Your task to perform on an android device: set default search engine in the chrome app Image 0: 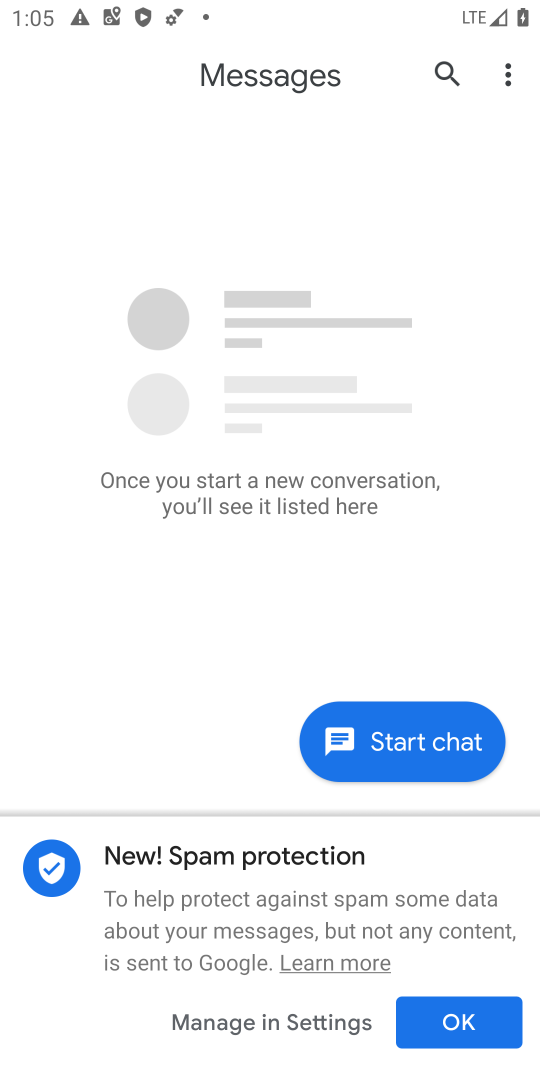
Step 0: press back button
Your task to perform on an android device: set default search engine in the chrome app Image 1: 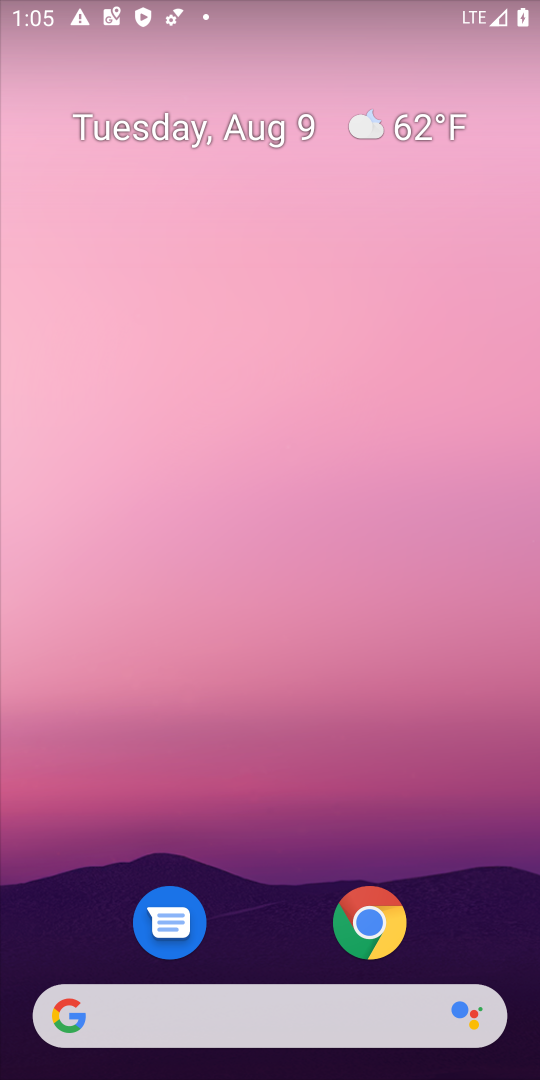
Step 1: click (399, 908)
Your task to perform on an android device: set default search engine in the chrome app Image 2: 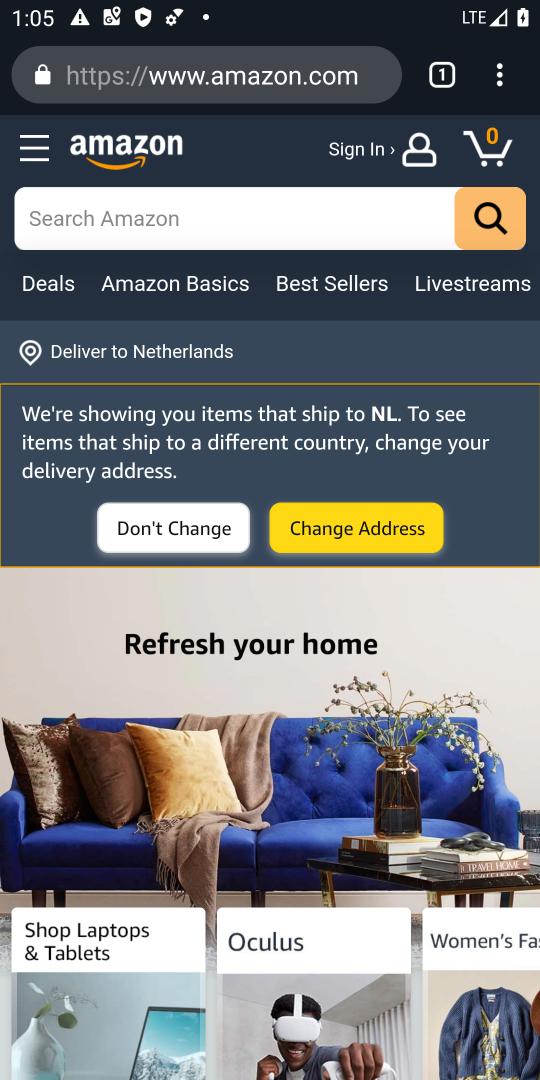
Step 2: click (504, 88)
Your task to perform on an android device: set default search engine in the chrome app Image 3: 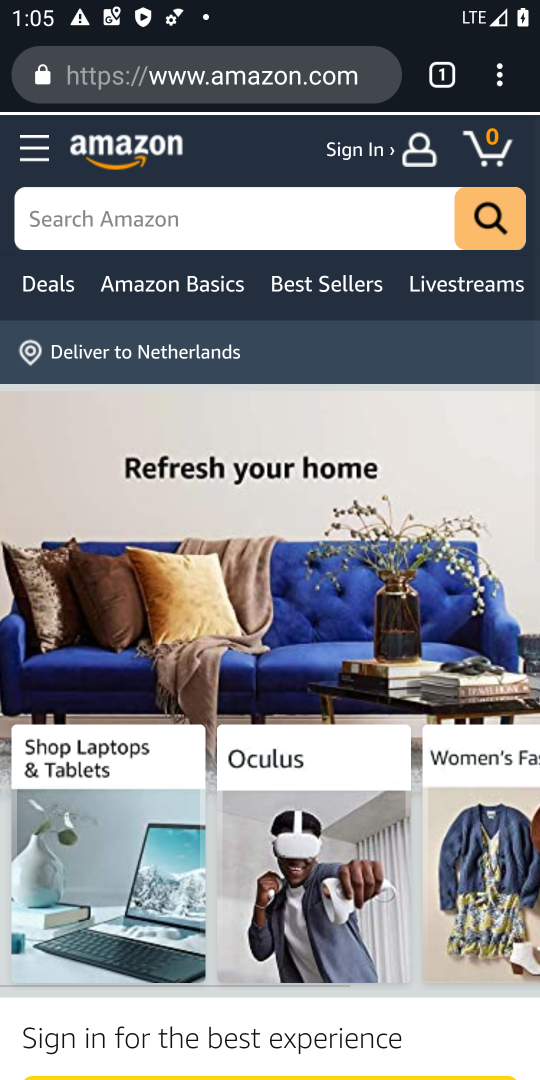
Step 3: click (504, 88)
Your task to perform on an android device: set default search engine in the chrome app Image 4: 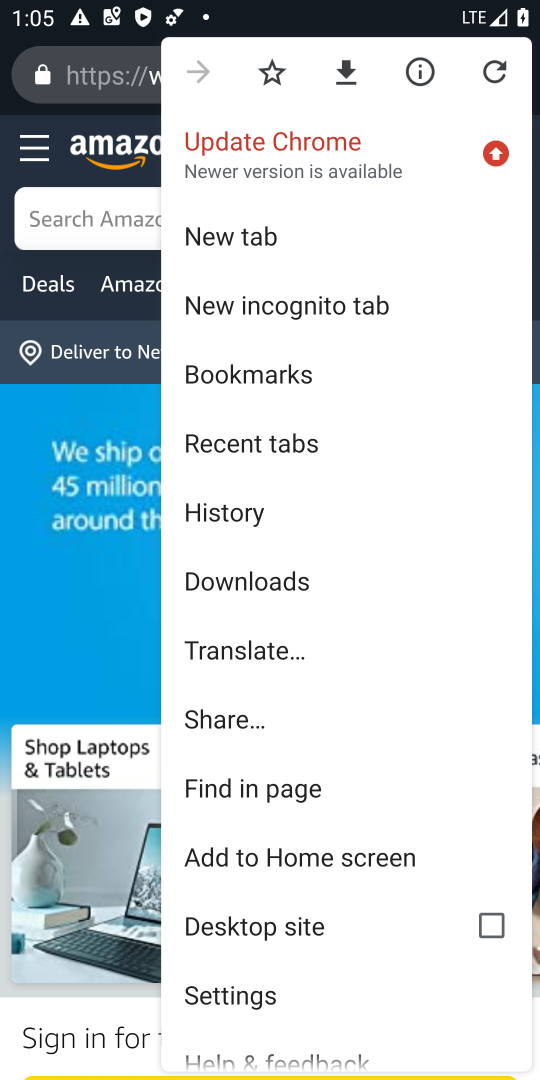
Step 4: click (243, 992)
Your task to perform on an android device: set default search engine in the chrome app Image 5: 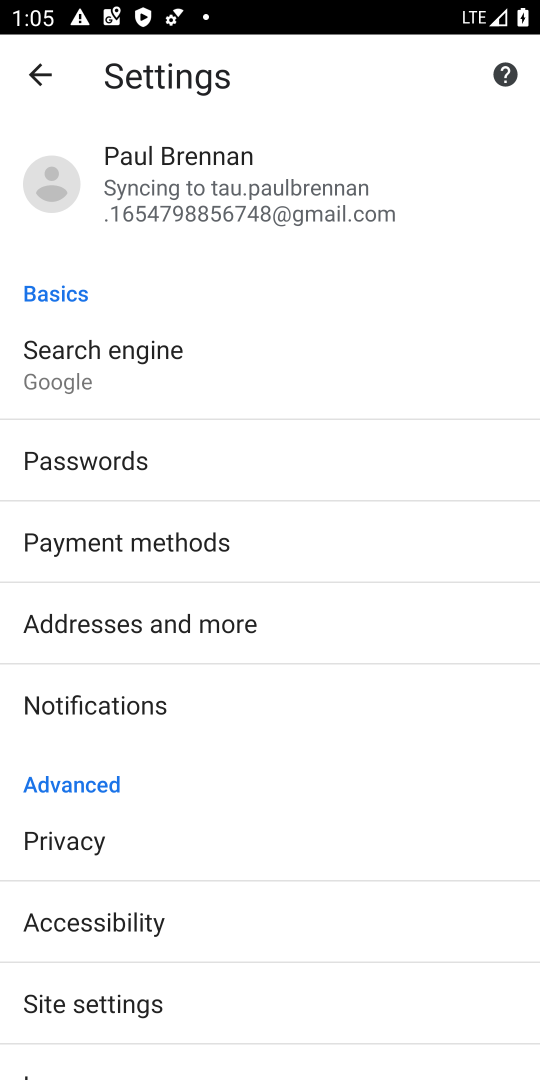
Step 5: click (87, 361)
Your task to perform on an android device: set default search engine in the chrome app Image 6: 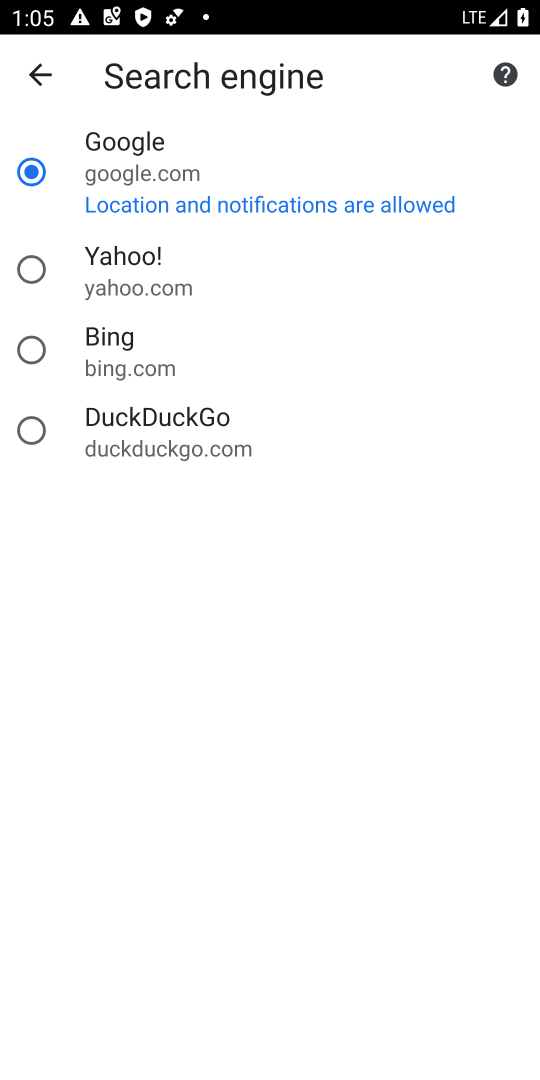
Step 6: click (47, 172)
Your task to perform on an android device: set default search engine in the chrome app Image 7: 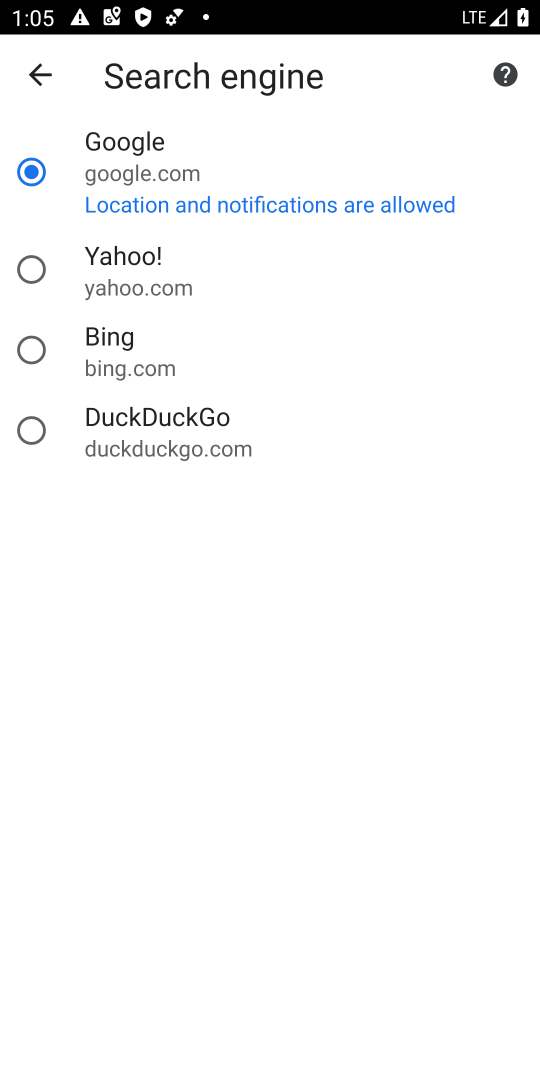
Step 7: task complete